Your task to perform on an android device: manage bookmarks in the chrome app Image 0: 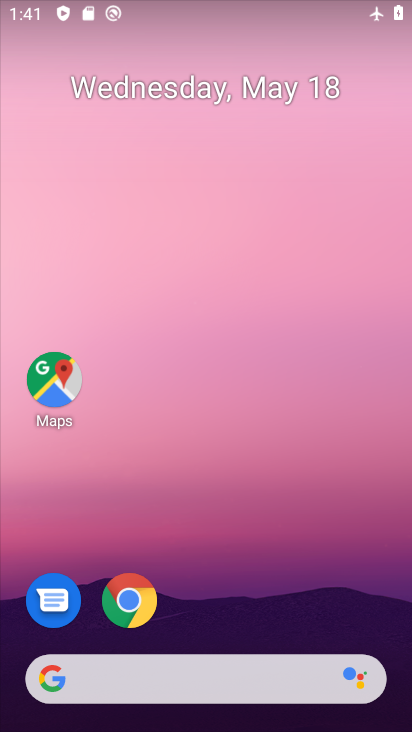
Step 0: click (138, 610)
Your task to perform on an android device: manage bookmarks in the chrome app Image 1: 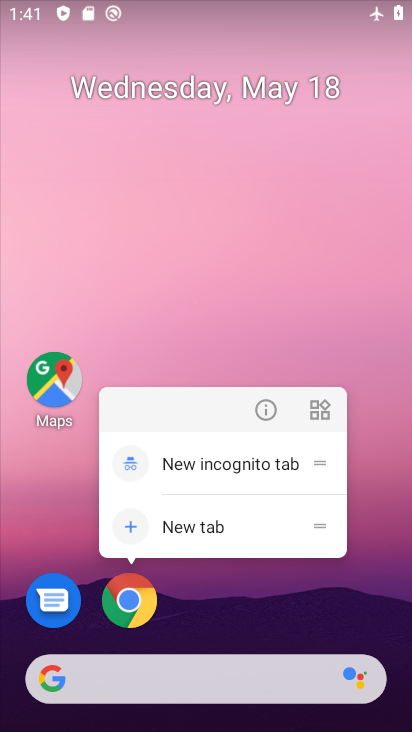
Step 1: click (130, 601)
Your task to perform on an android device: manage bookmarks in the chrome app Image 2: 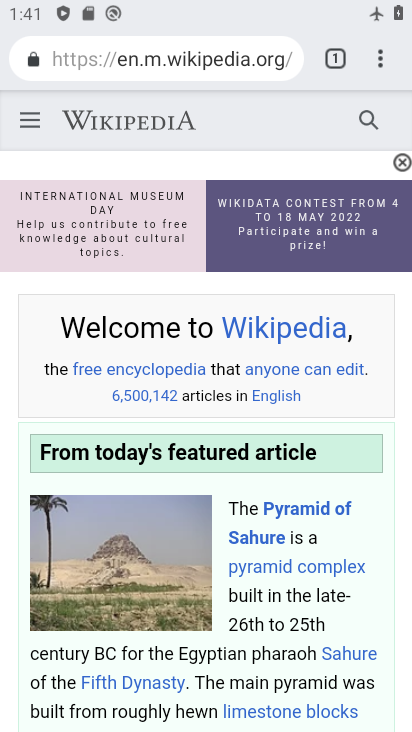
Step 2: click (386, 56)
Your task to perform on an android device: manage bookmarks in the chrome app Image 3: 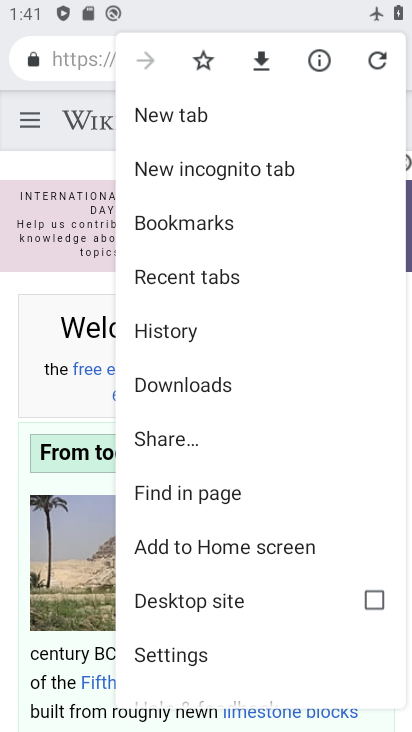
Step 3: click (178, 654)
Your task to perform on an android device: manage bookmarks in the chrome app Image 4: 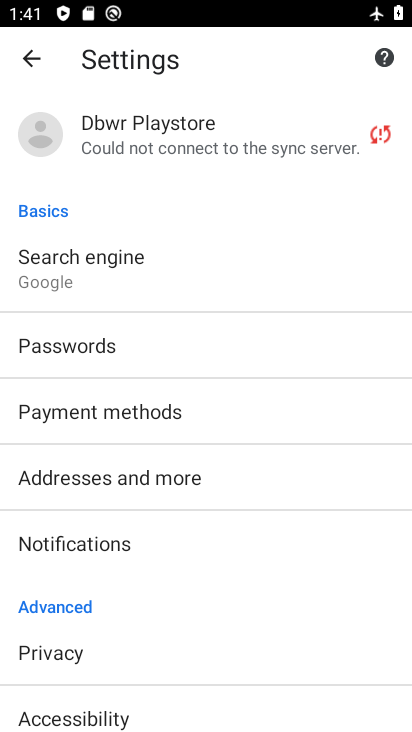
Step 4: click (17, 57)
Your task to perform on an android device: manage bookmarks in the chrome app Image 5: 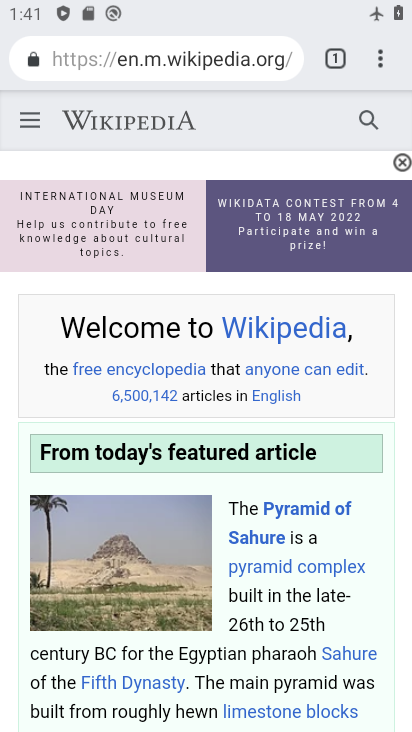
Step 5: click (380, 54)
Your task to perform on an android device: manage bookmarks in the chrome app Image 6: 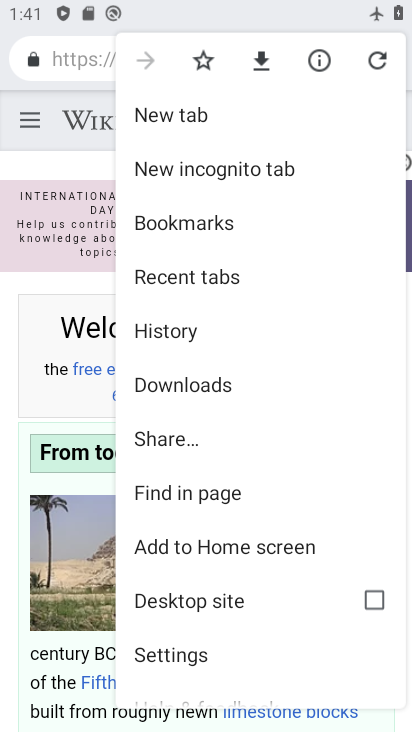
Step 6: click (175, 221)
Your task to perform on an android device: manage bookmarks in the chrome app Image 7: 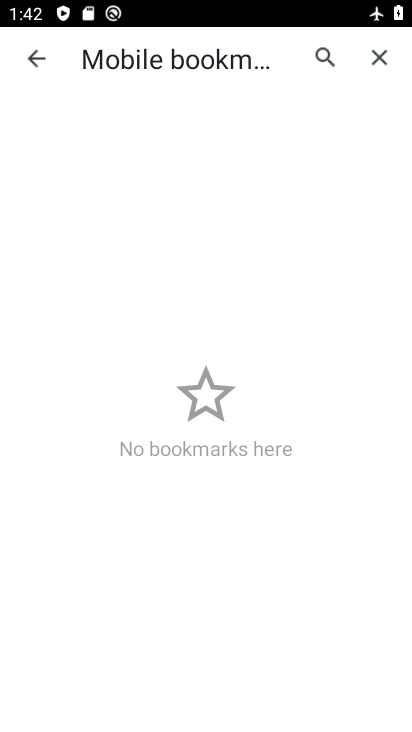
Step 7: task complete